Your task to perform on an android device: What is the recent news? Image 0: 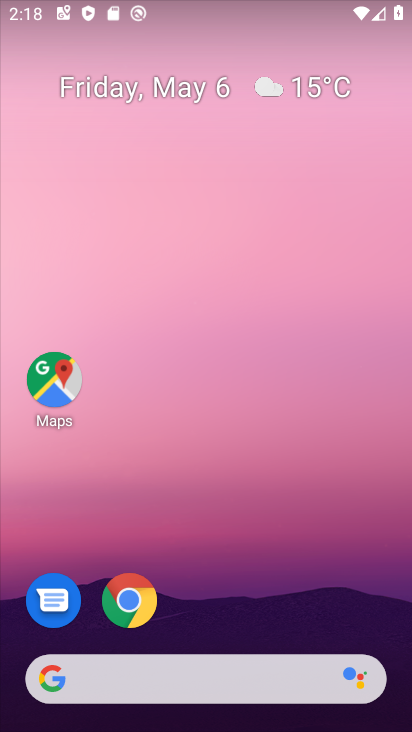
Step 0: drag from (295, 590) to (216, 5)
Your task to perform on an android device: What is the recent news? Image 1: 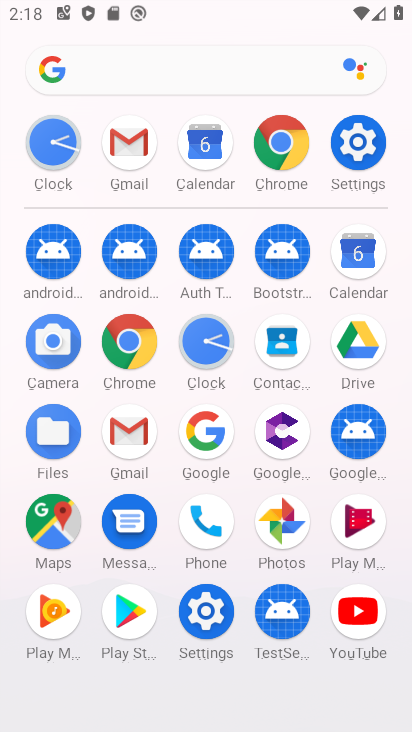
Step 1: drag from (3, 548) to (0, 221)
Your task to perform on an android device: What is the recent news? Image 2: 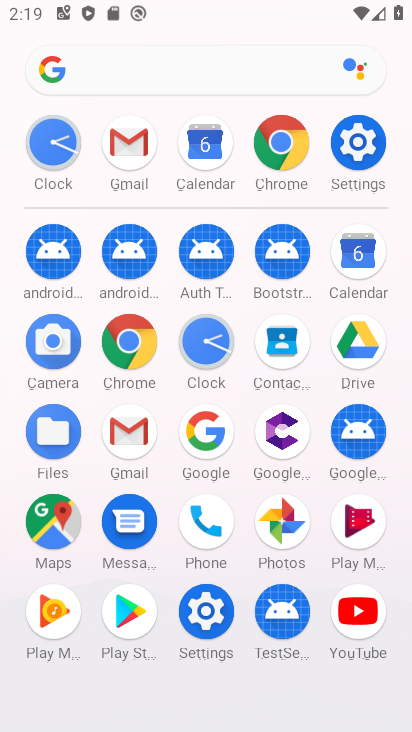
Step 2: click (128, 335)
Your task to perform on an android device: What is the recent news? Image 3: 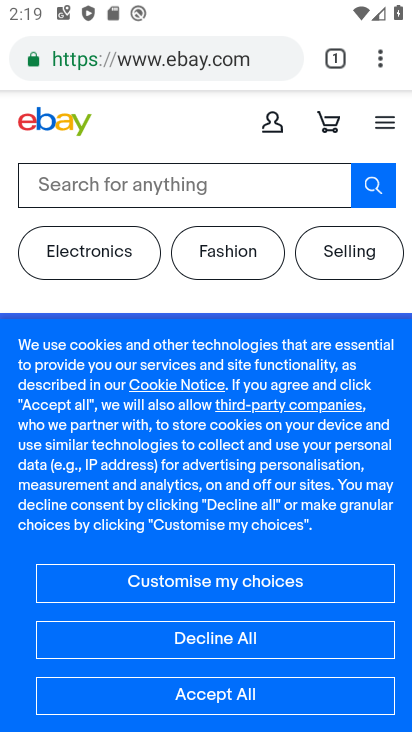
Step 3: click (184, 59)
Your task to perform on an android device: What is the recent news? Image 4: 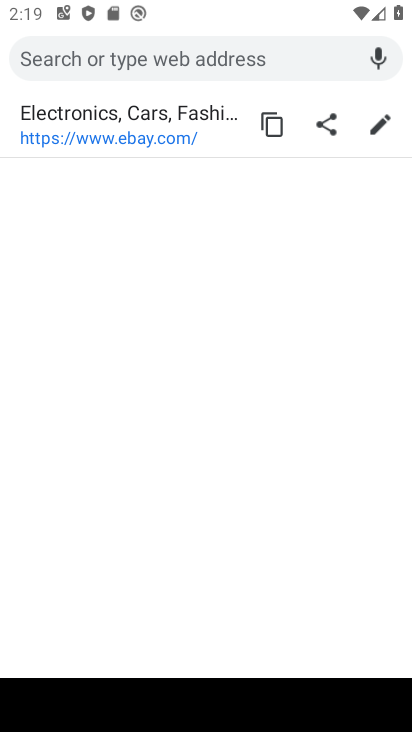
Step 4: type "What is the recent news?"
Your task to perform on an android device: What is the recent news? Image 5: 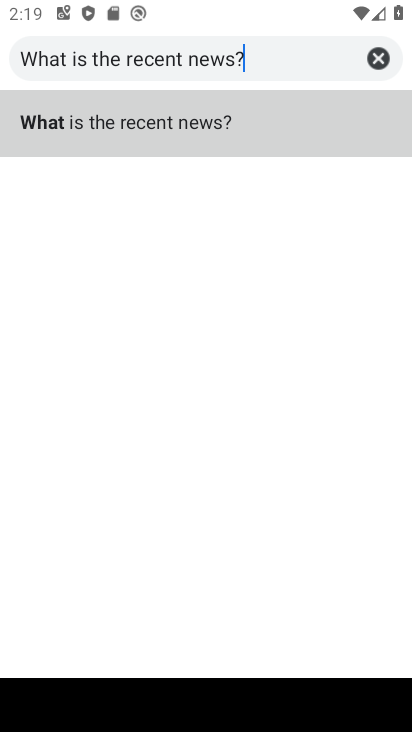
Step 5: type ""
Your task to perform on an android device: What is the recent news? Image 6: 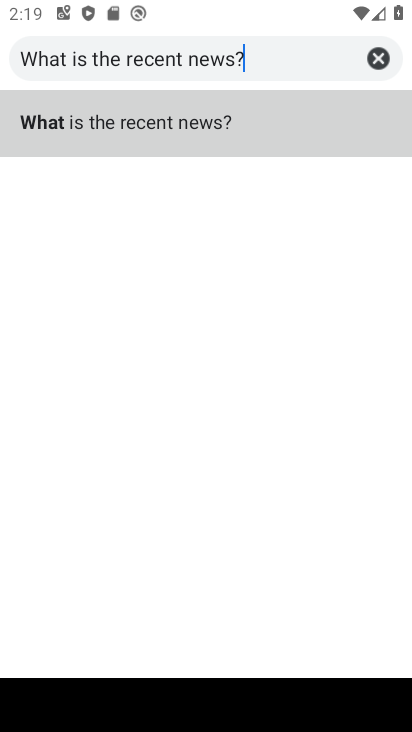
Step 6: click (262, 127)
Your task to perform on an android device: What is the recent news? Image 7: 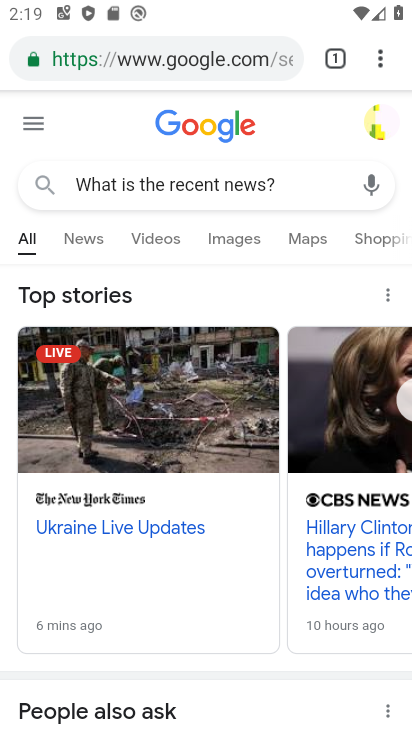
Step 7: task complete